Your task to perform on an android device: Open calendar and show me the second week of next month Image 0: 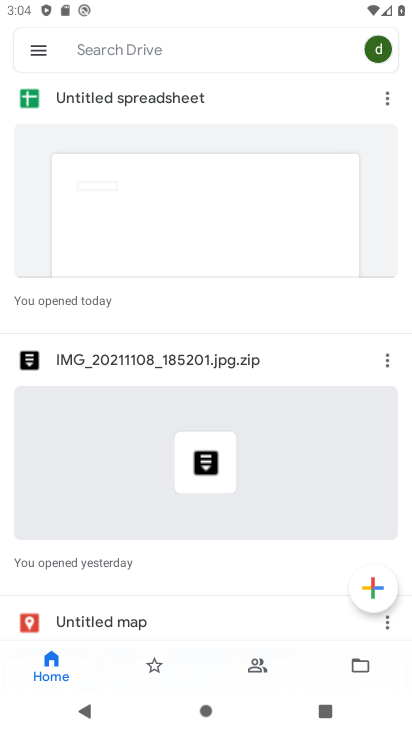
Step 0: press back button
Your task to perform on an android device: Open calendar and show me the second week of next month Image 1: 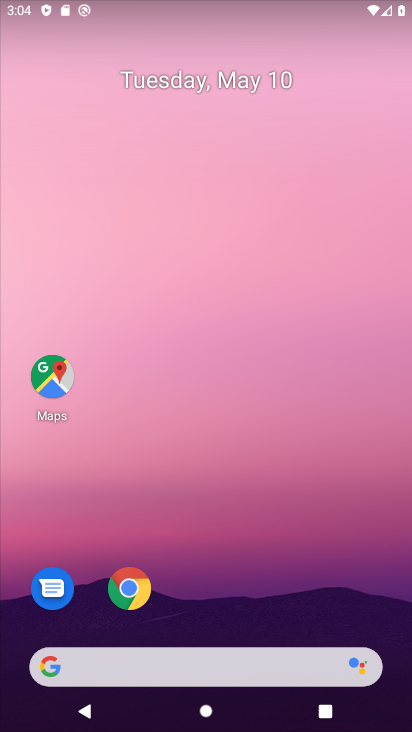
Step 1: drag from (171, 644) to (275, 92)
Your task to perform on an android device: Open calendar and show me the second week of next month Image 2: 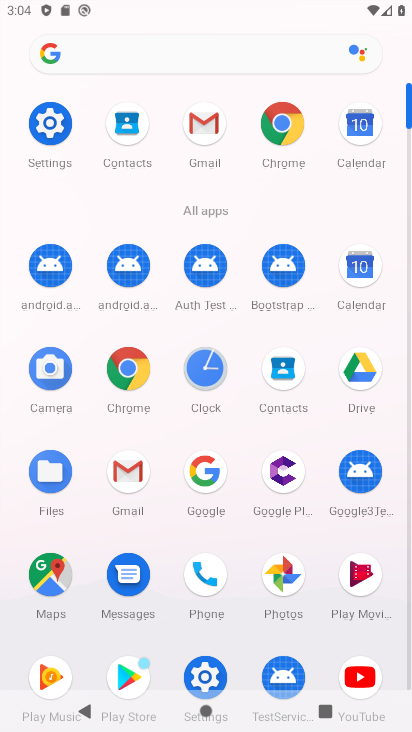
Step 2: click (354, 266)
Your task to perform on an android device: Open calendar and show me the second week of next month Image 3: 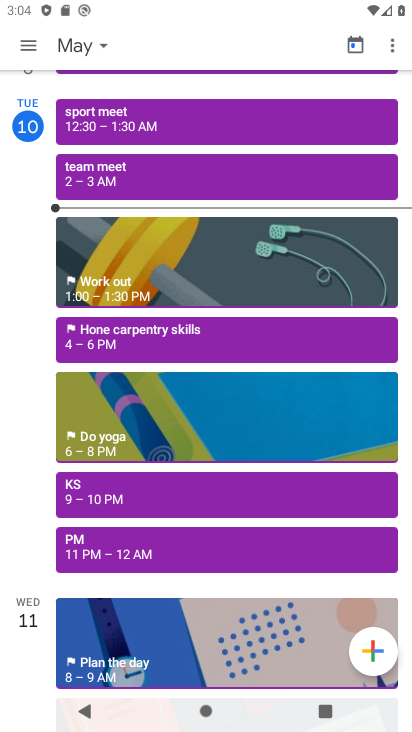
Step 3: click (59, 49)
Your task to perform on an android device: Open calendar and show me the second week of next month Image 4: 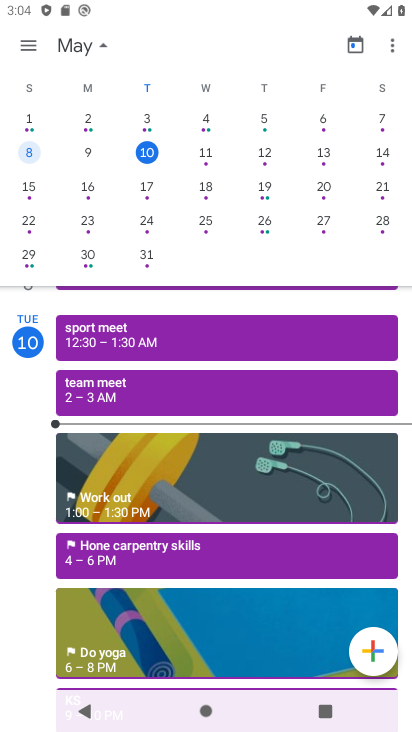
Step 4: drag from (363, 226) to (40, 207)
Your task to perform on an android device: Open calendar and show me the second week of next month Image 5: 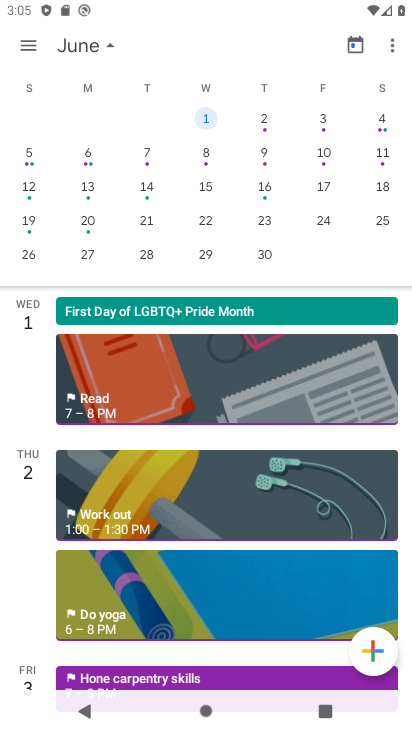
Step 5: click (23, 191)
Your task to perform on an android device: Open calendar and show me the second week of next month Image 6: 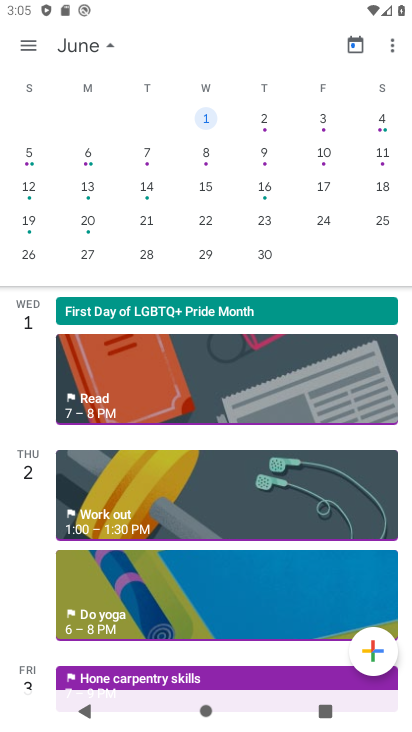
Step 6: click (36, 191)
Your task to perform on an android device: Open calendar and show me the second week of next month Image 7: 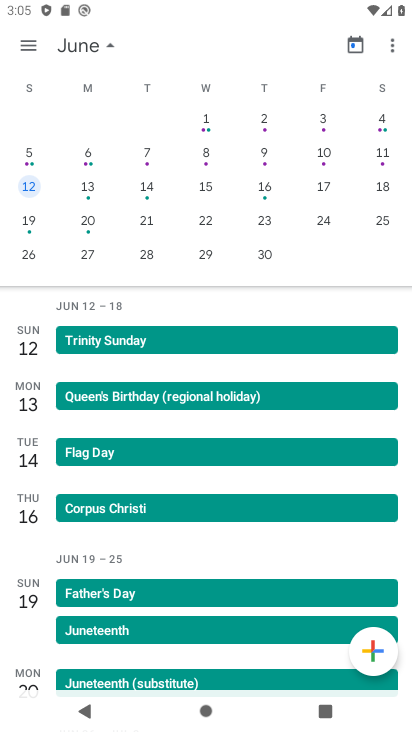
Step 7: click (37, 42)
Your task to perform on an android device: Open calendar and show me the second week of next month Image 8: 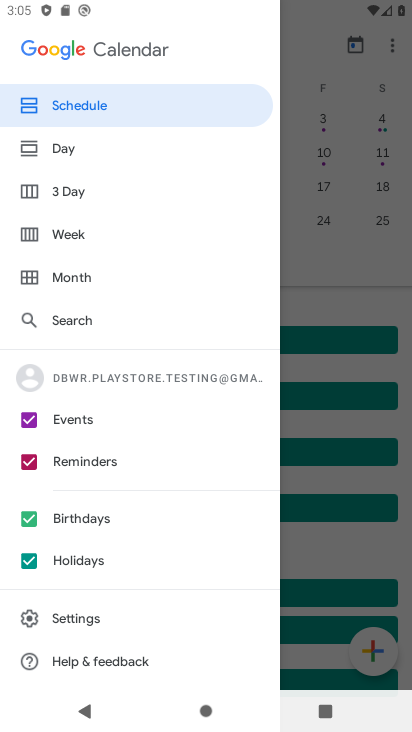
Step 8: click (140, 238)
Your task to perform on an android device: Open calendar and show me the second week of next month Image 9: 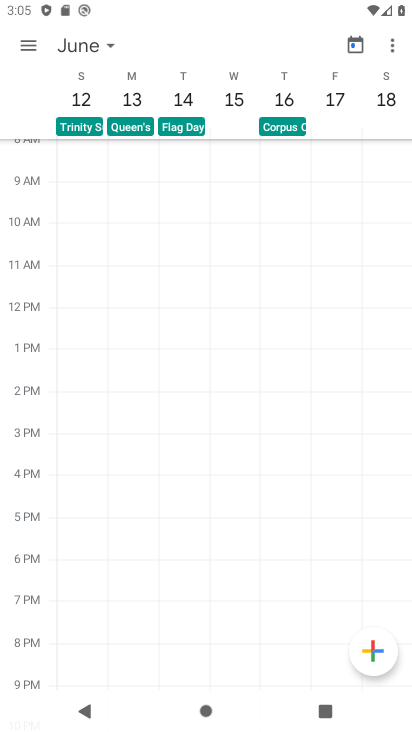
Step 9: task complete